Your task to perform on an android device: Go to location settings Image 0: 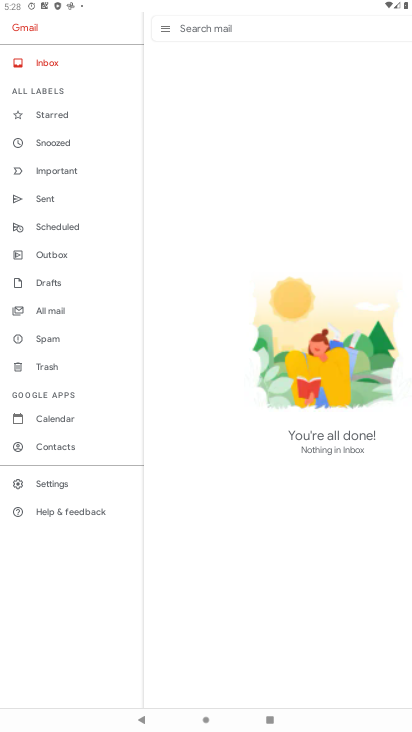
Step 0: press home button
Your task to perform on an android device: Go to location settings Image 1: 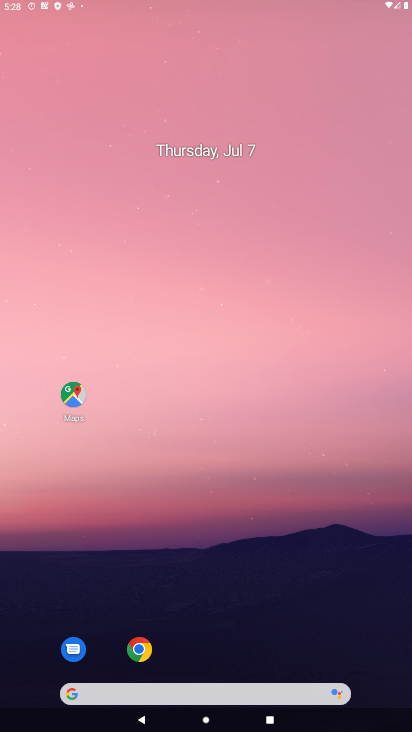
Step 1: drag from (380, 666) to (146, 60)
Your task to perform on an android device: Go to location settings Image 2: 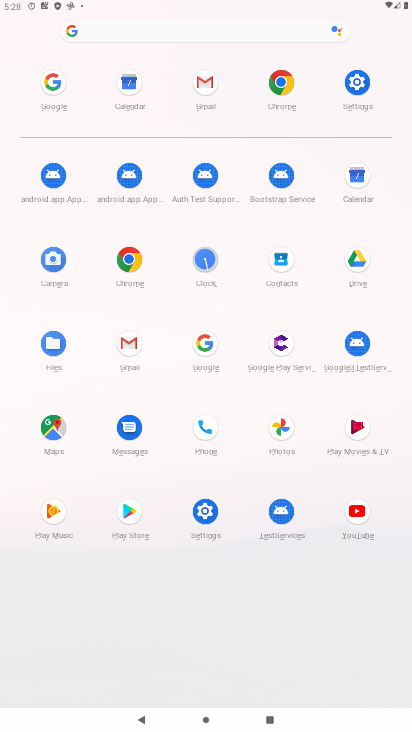
Step 2: click (198, 519)
Your task to perform on an android device: Go to location settings Image 3: 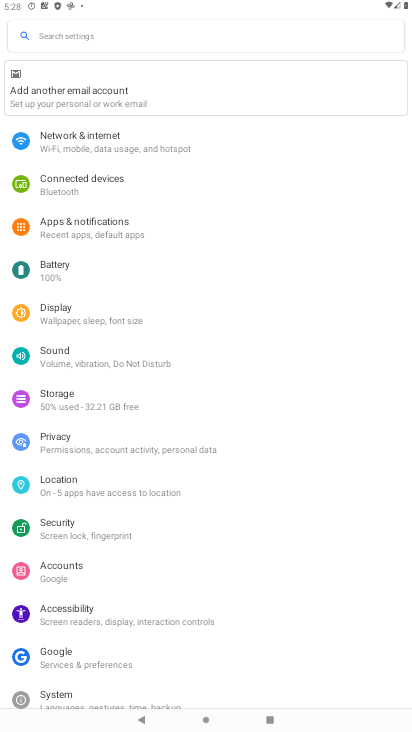
Step 3: click (78, 495)
Your task to perform on an android device: Go to location settings Image 4: 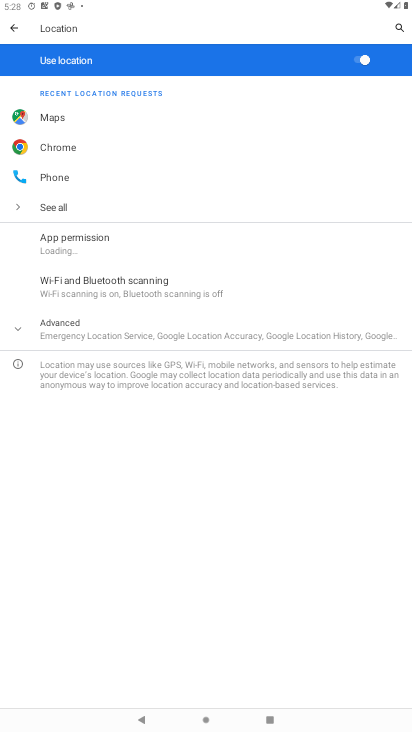
Step 4: task complete